Your task to perform on an android device: turn on wifi Image 0: 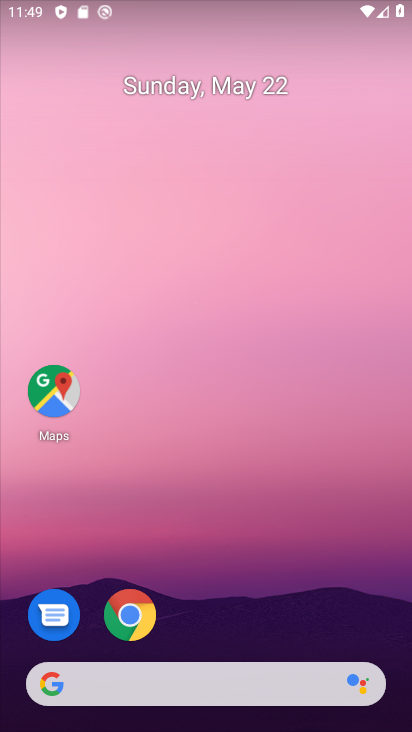
Step 0: drag from (111, 10) to (179, 533)
Your task to perform on an android device: turn on wifi Image 1: 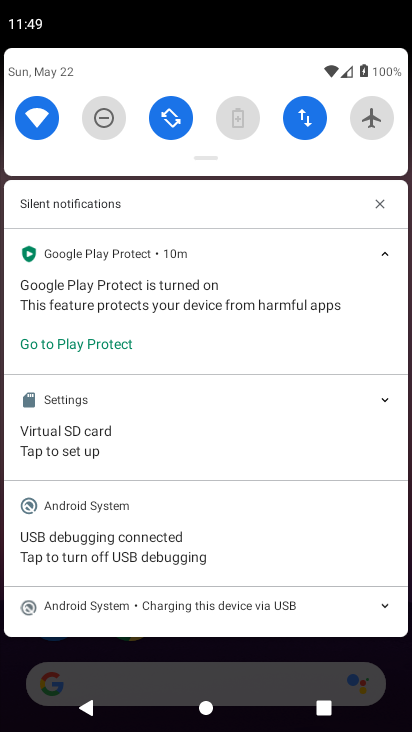
Step 1: task complete